Your task to perform on an android device: create a new album in the google photos Image 0: 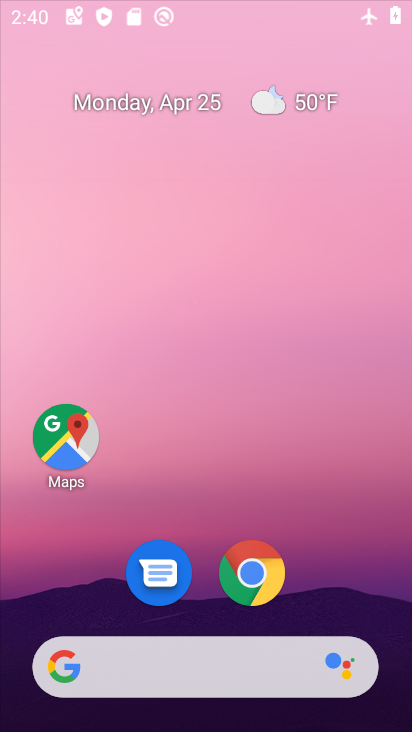
Step 0: drag from (336, 569) to (322, 17)
Your task to perform on an android device: create a new album in the google photos Image 1: 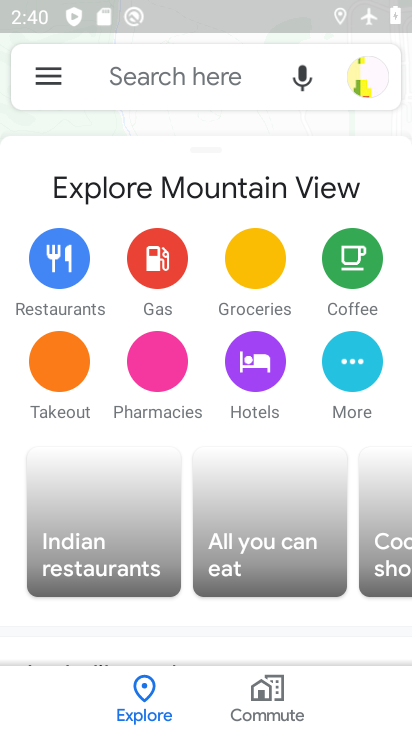
Step 1: press home button
Your task to perform on an android device: create a new album in the google photos Image 2: 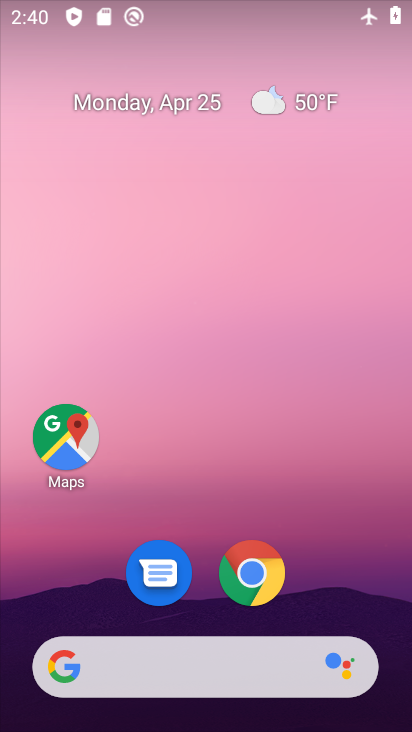
Step 2: drag from (352, 565) to (315, 97)
Your task to perform on an android device: create a new album in the google photos Image 3: 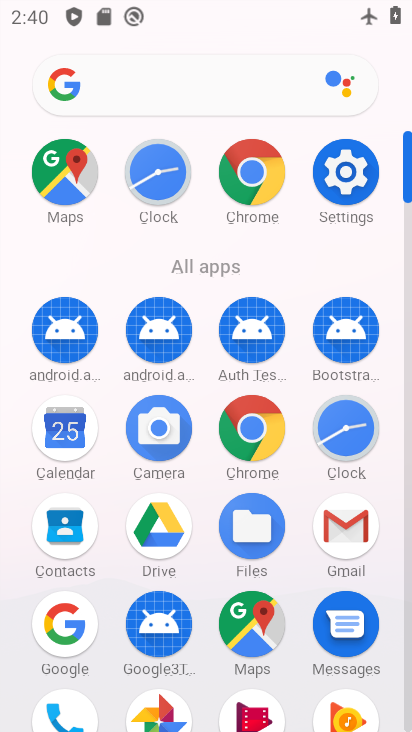
Step 3: drag from (396, 639) to (406, 156)
Your task to perform on an android device: create a new album in the google photos Image 4: 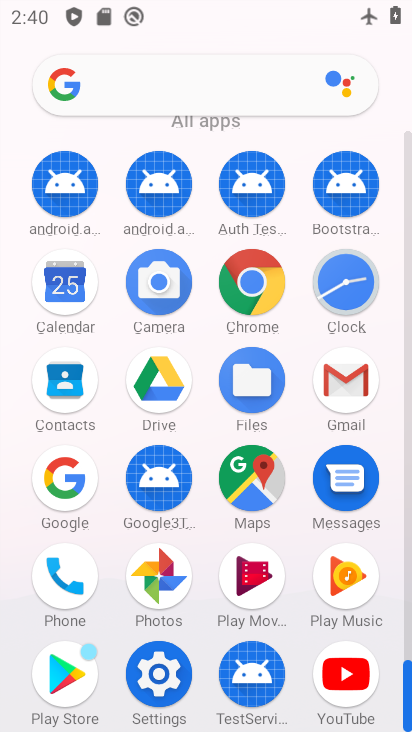
Step 4: click (175, 584)
Your task to perform on an android device: create a new album in the google photos Image 5: 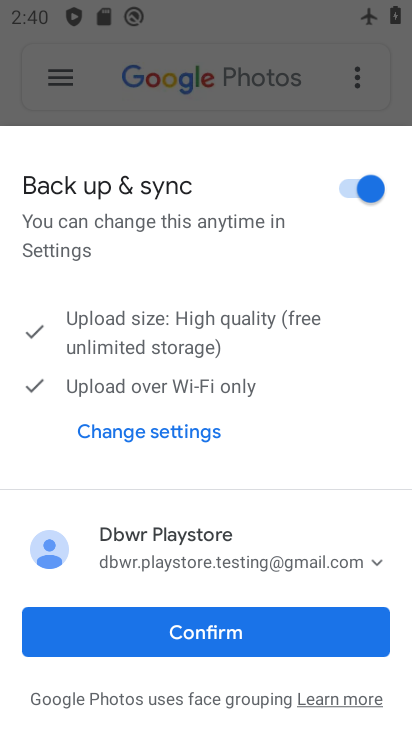
Step 5: click (205, 627)
Your task to perform on an android device: create a new album in the google photos Image 6: 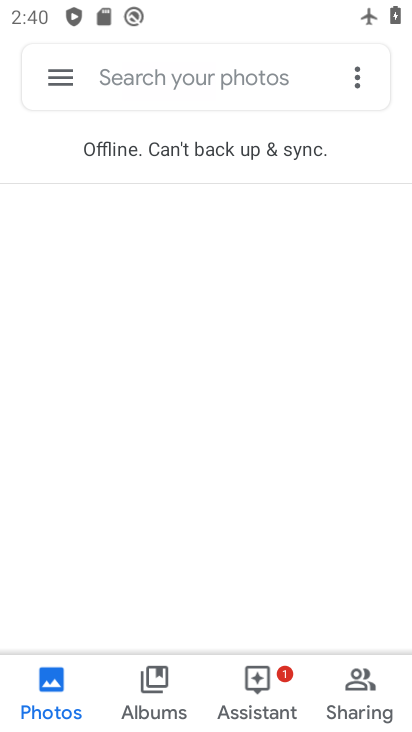
Step 6: click (159, 686)
Your task to perform on an android device: create a new album in the google photos Image 7: 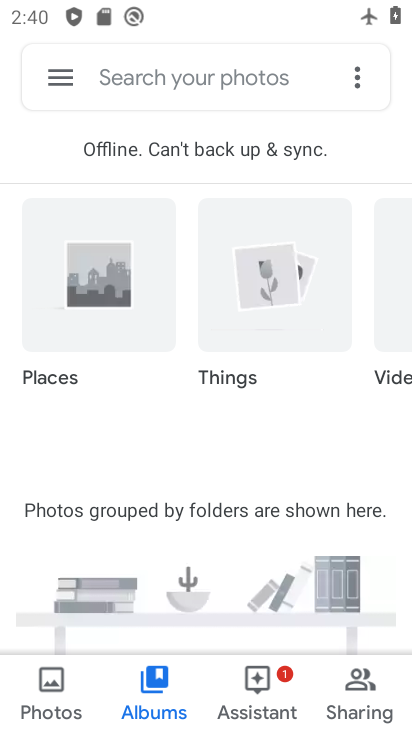
Step 7: task complete